Your task to perform on an android device: toggle location history Image 0: 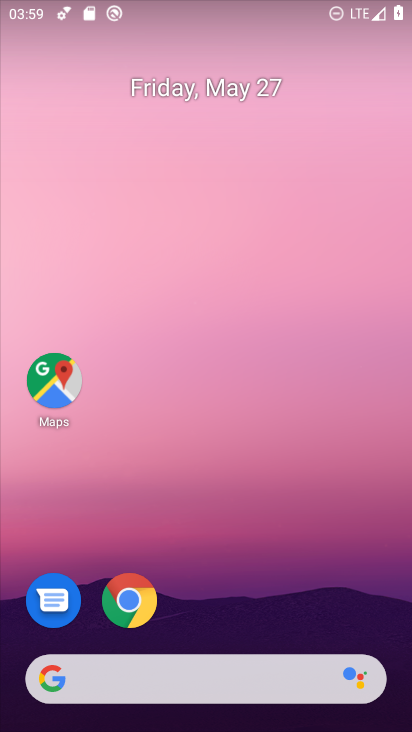
Step 0: drag from (244, 691) to (240, 189)
Your task to perform on an android device: toggle location history Image 1: 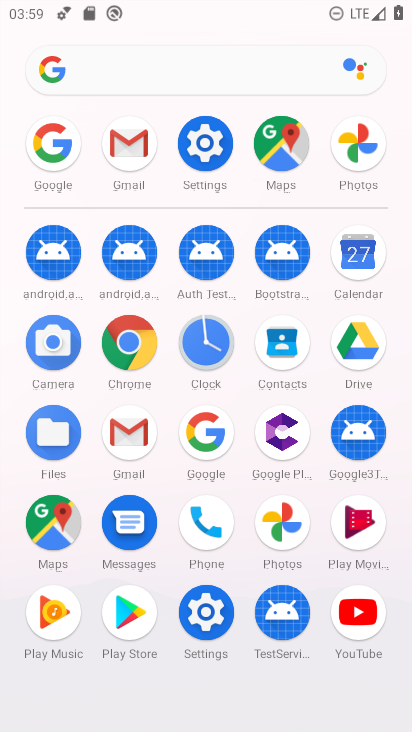
Step 1: click (202, 134)
Your task to perform on an android device: toggle location history Image 2: 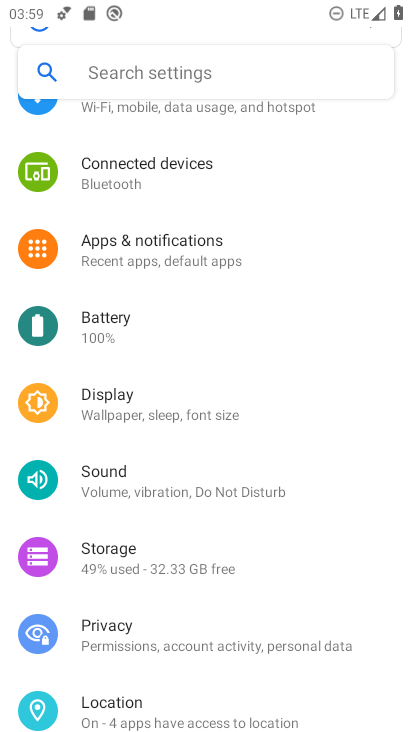
Step 2: click (118, 696)
Your task to perform on an android device: toggle location history Image 3: 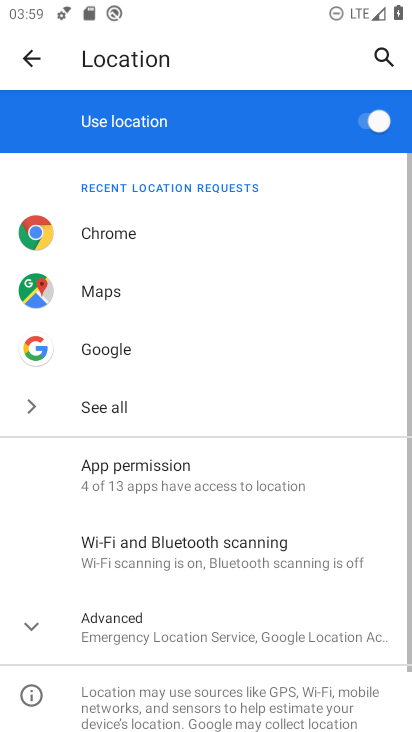
Step 3: click (113, 632)
Your task to perform on an android device: toggle location history Image 4: 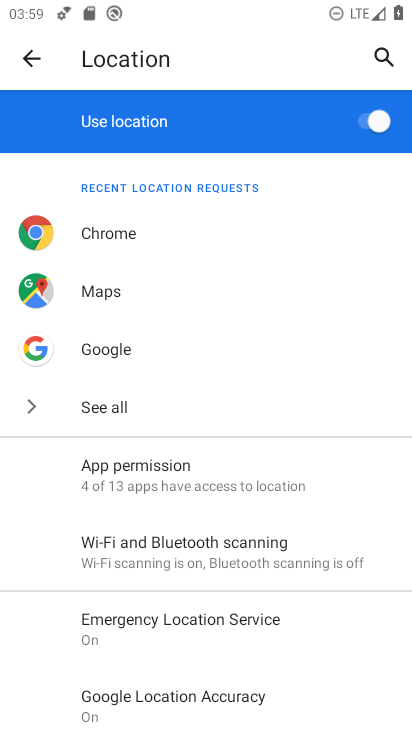
Step 4: drag from (174, 665) to (172, 277)
Your task to perform on an android device: toggle location history Image 5: 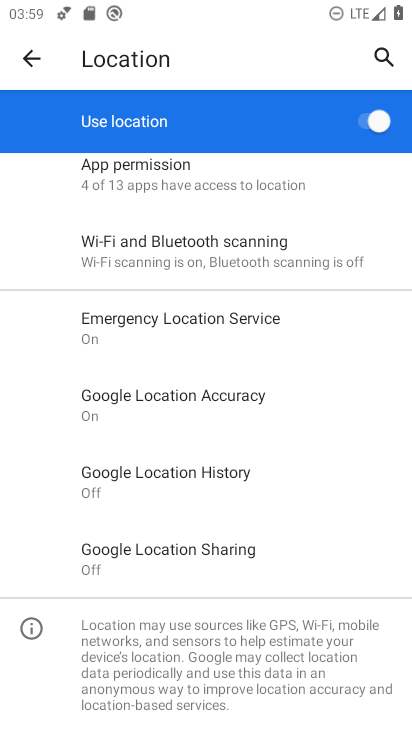
Step 5: click (205, 478)
Your task to perform on an android device: toggle location history Image 6: 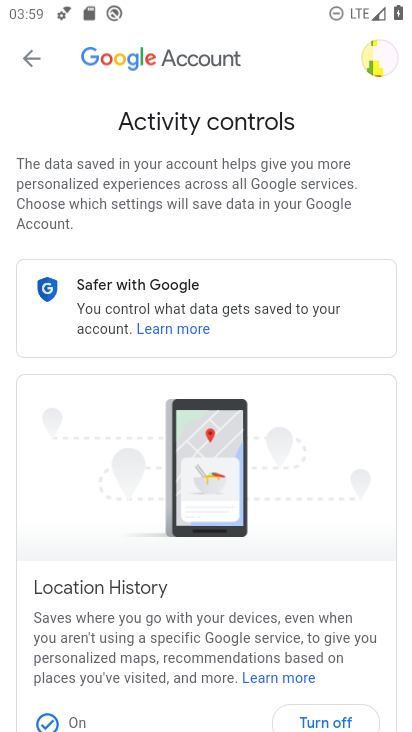
Step 6: click (334, 718)
Your task to perform on an android device: toggle location history Image 7: 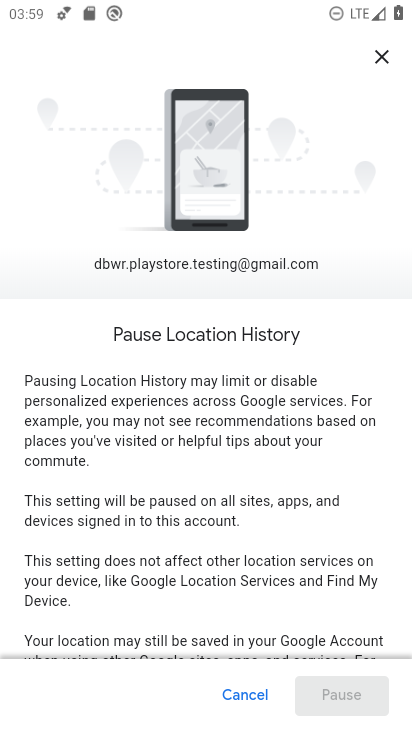
Step 7: drag from (291, 576) to (291, 216)
Your task to perform on an android device: toggle location history Image 8: 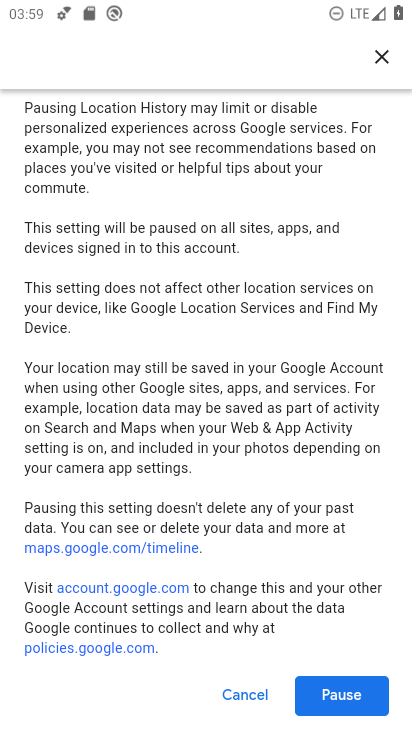
Step 8: click (337, 694)
Your task to perform on an android device: toggle location history Image 9: 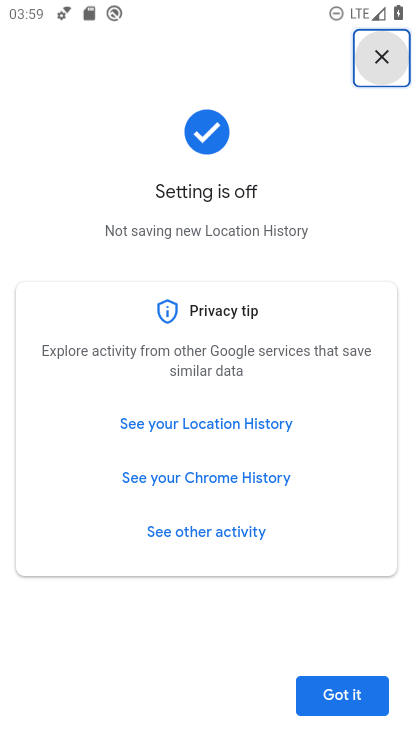
Step 9: task complete